Your task to perform on an android device: check battery use Image 0: 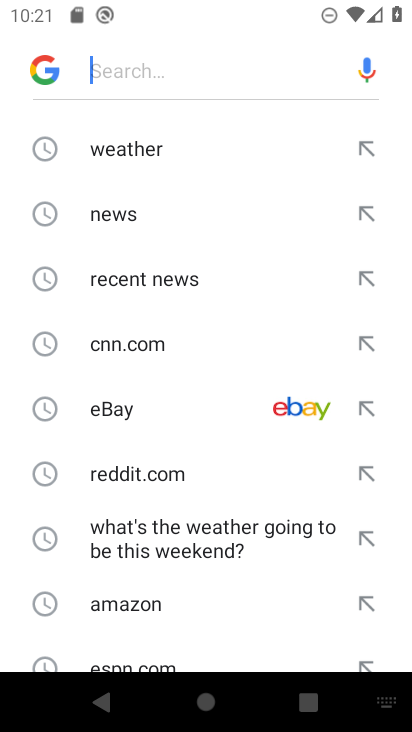
Step 0: press back button
Your task to perform on an android device: check battery use Image 1: 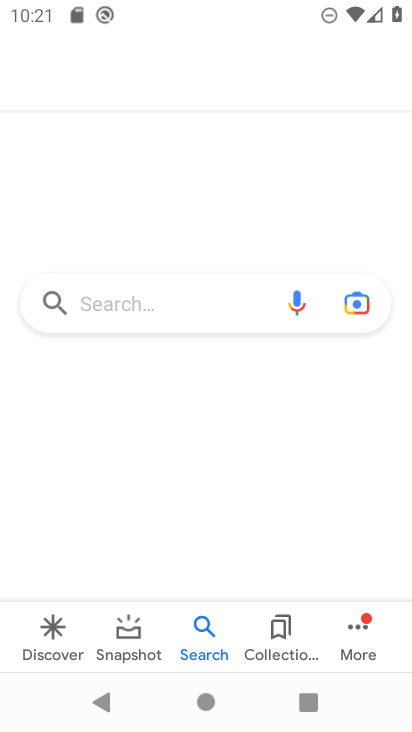
Step 1: press back button
Your task to perform on an android device: check battery use Image 2: 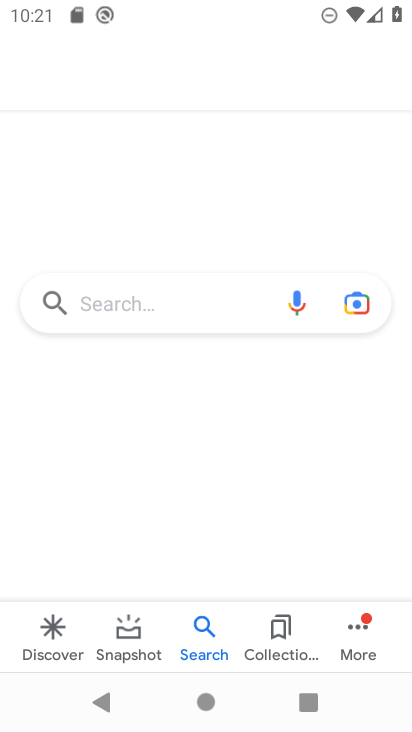
Step 2: press back button
Your task to perform on an android device: check battery use Image 3: 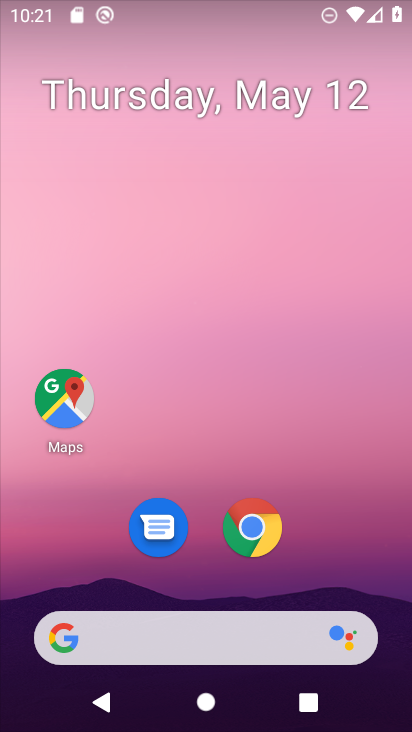
Step 3: drag from (350, 553) to (384, 222)
Your task to perform on an android device: check battery use Image 4: 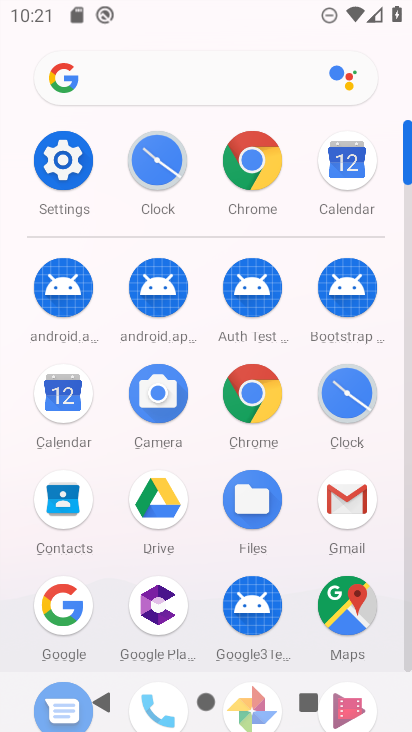
Step 4: click (63, 205)
Your task to perform on an android device: check battery use Image 5: 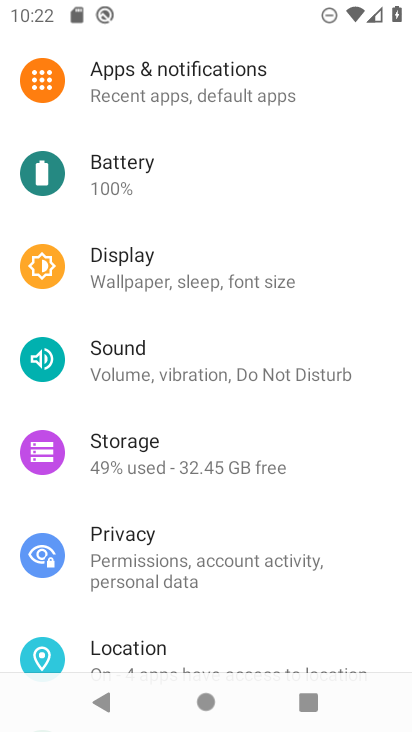
Step 5: click (181, 187)
Your task to perform on an android device: check battery use Image 6: 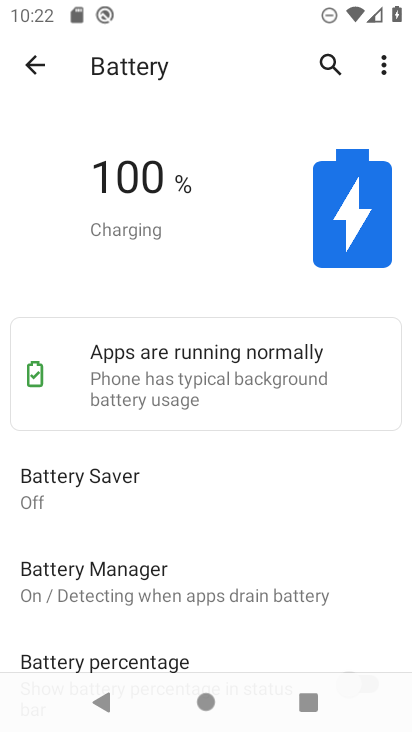
Step 6: task complete